Your task to perform on an android device: read, delete, or share a saved page in the chrome app Image 0: 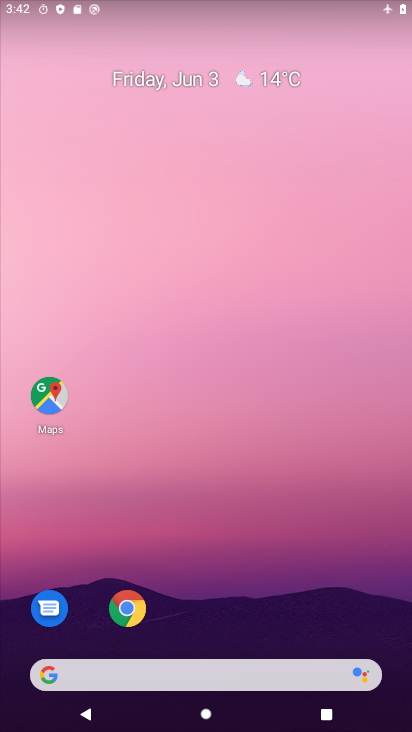
Step 0: click (111, 608)
Your task to perform on an android device: read, delete, or share a saved page in the chrome app Image 1: 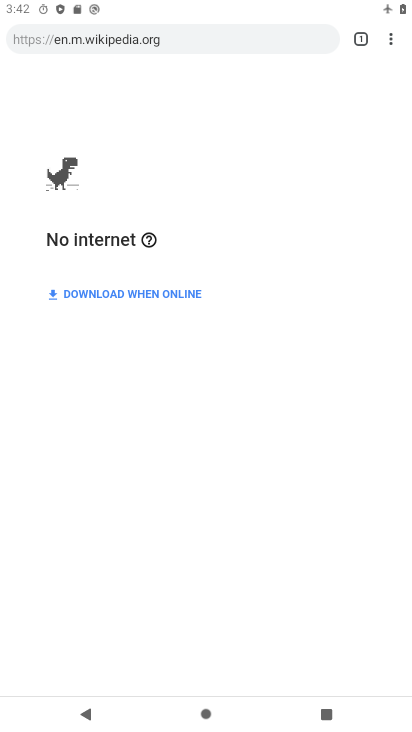
Step 1: click (385, 44)
Your task to perform on an android device: read, delete, or share a saved page in the chrome app Image 2: 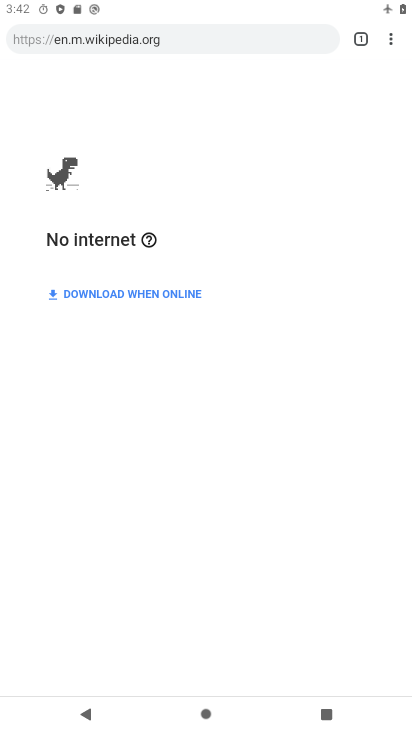
Step 2: click (395, 41)
Your task to perform on an android device: read, delete, or share a saved page in the chrome app Image 3: 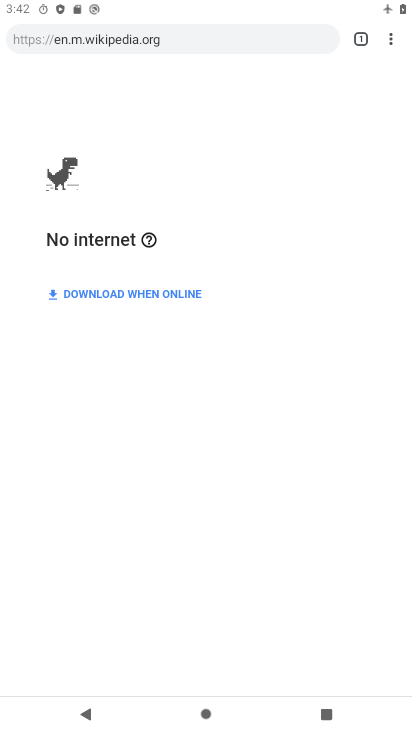
Step 3: click (391, 34)
Your task to perform on an android device: read, delete, or share a saved page in the chrome app Image 4: 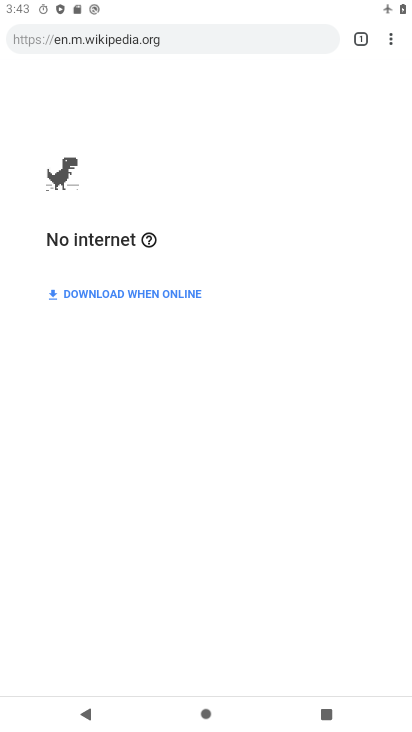
Step 4: click (393, 40)
Your task to perform on an android device: read, delete, or share a saved page in the chrome app Image 5: 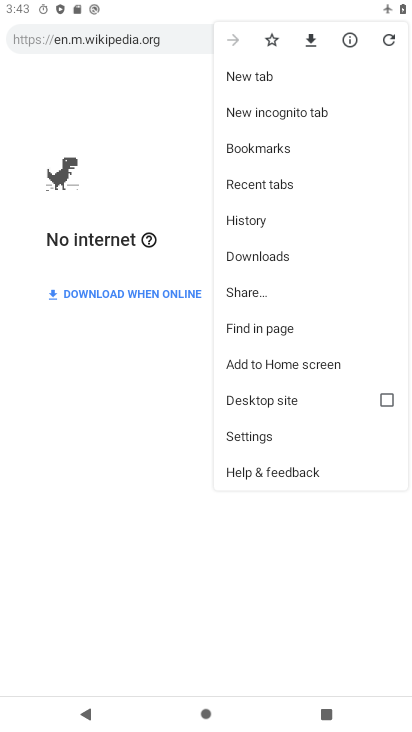
Step 5: click (269, 257)
Your task to perform on an android device: read, delete, or share a saved page in the chrome app Image 6: 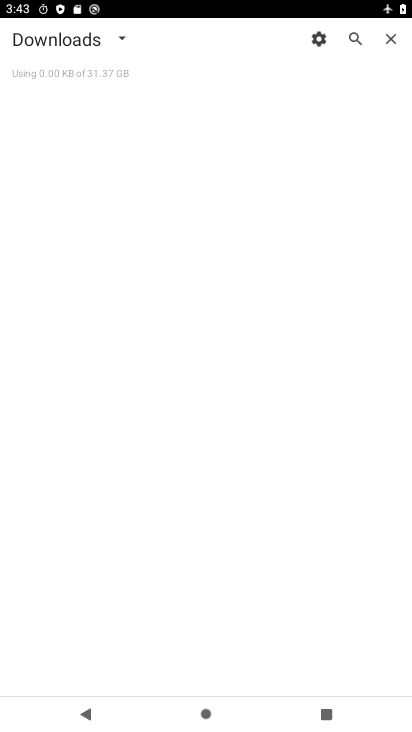
Step 6: click (123, 40)
Your task to perform on an android device: read, delete, or share a saved page in the chrome app Image 7: 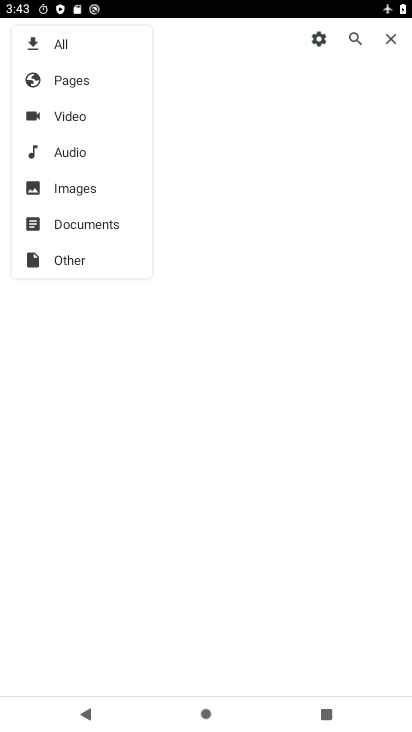
Step 7: click (69, 87)
Your task to perform on an android device: read, delete, or share a saved page in the chrome app Image 8: 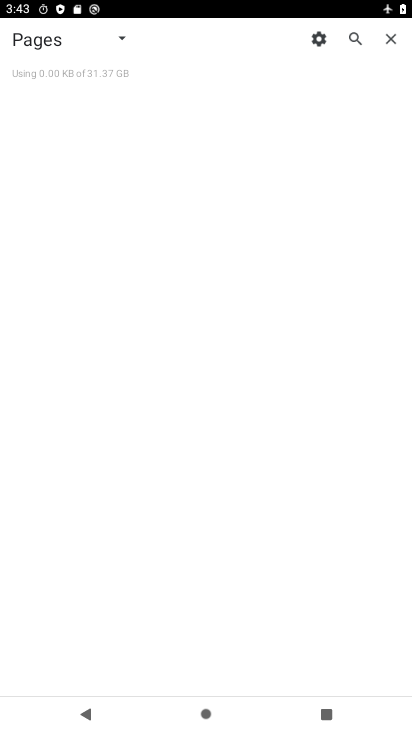
Step 8: task complete